Your task to perform on an android device: Do I have any events tomorrow? Image 0: 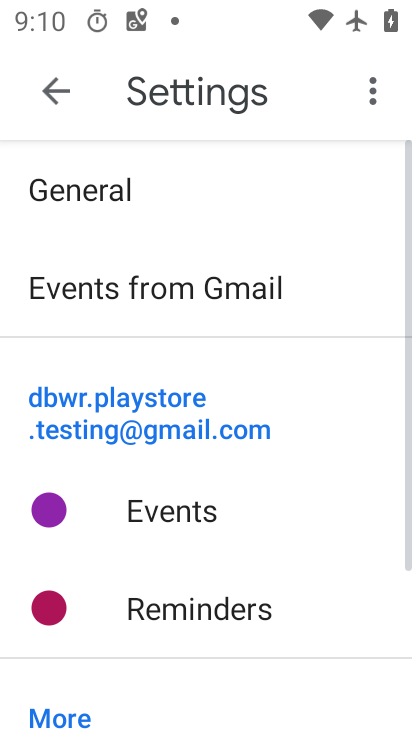
Step 0: press home button
Your task to perform on an android device: Do I have any events tomorrow? Image 1: 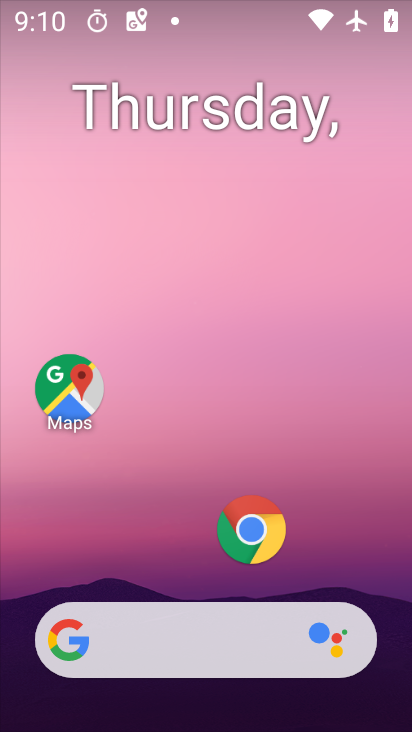
Step 1: drag from (192, 589) to (221, 113)
Your task to perform on an android device: Do I have any events tomorrow? Image 2: 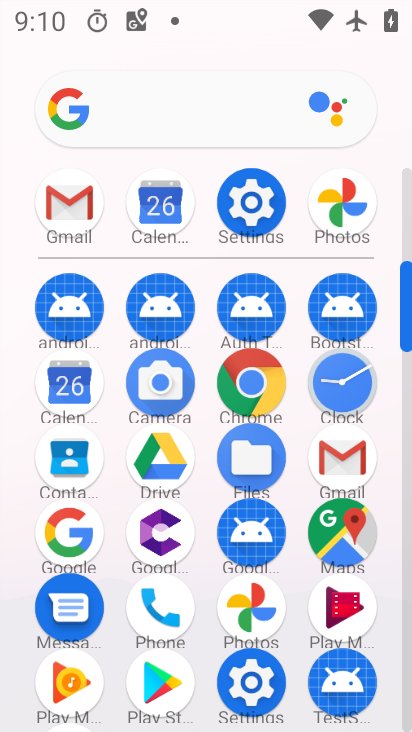
Step 2: click (66, 375)
Your task to perform on an android device: Do I have any events tomorrow? Image 3: 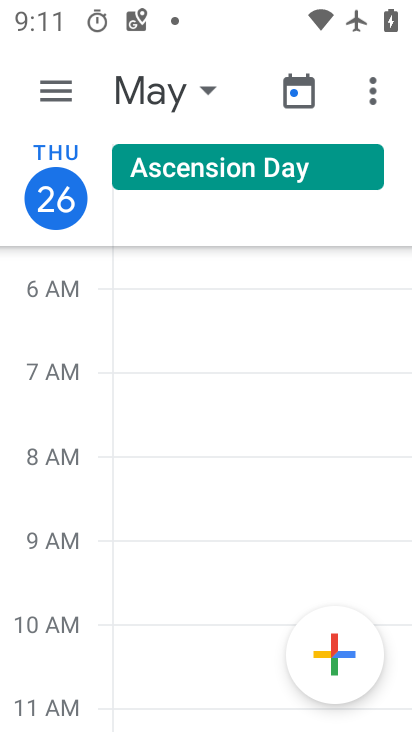
Step 3: click (84, 203)
Your task to perform on an android device: Do I have any events tomorrow? Image 4: 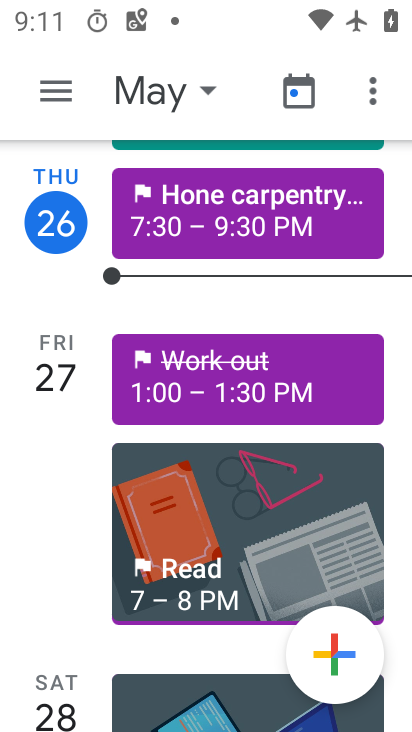
Step 4: click (81, 376)
Your task to perform on an android device: Do I have any events tomorrow? Image 5: 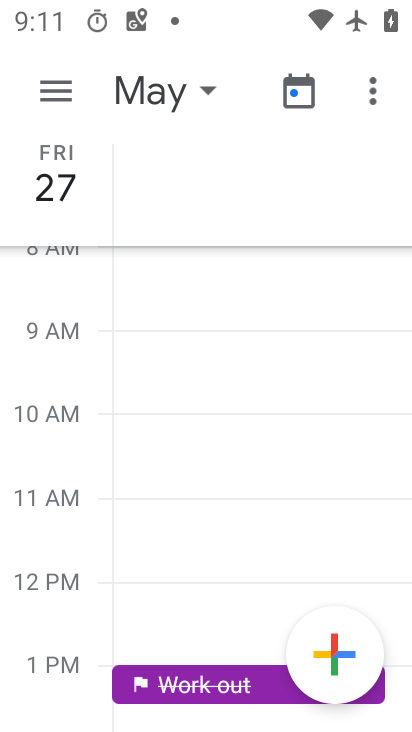
Step 5: task complete